Your task to perform on an android device: Go to Google Image 0: 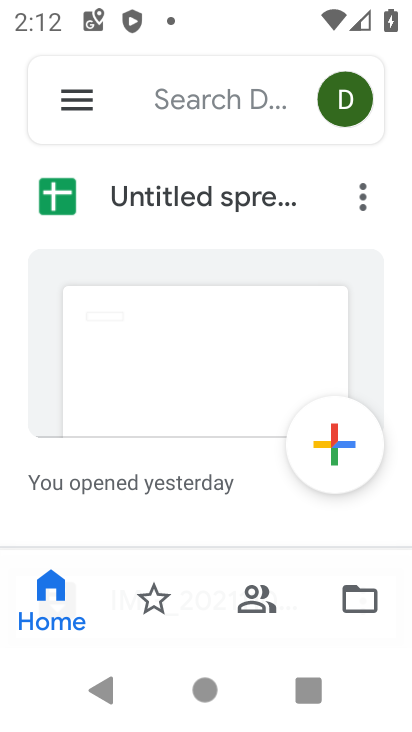
Step 0: press home button
Your task to perform on an android device: Go to Google Image 1: 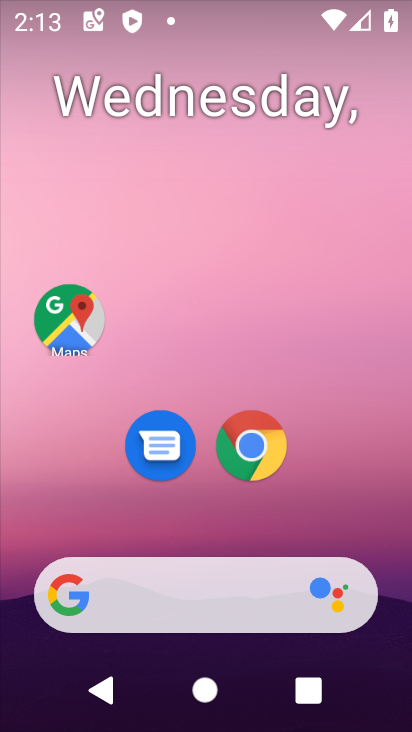
Step 1: drag from (208, 526) to (217, 207)
Your task to perform on an android device: Go to Google Image 2: 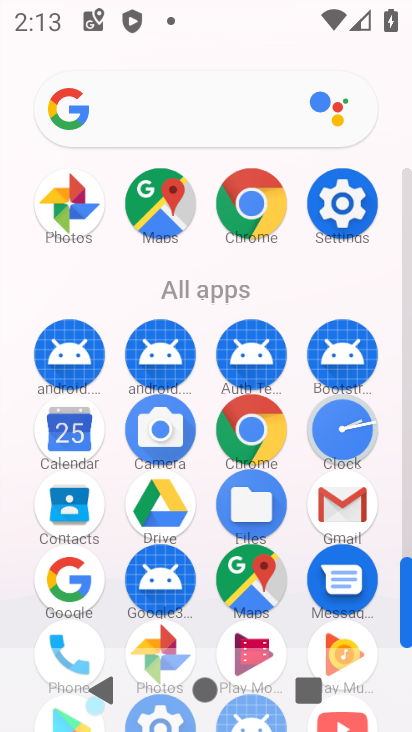
Step 2: click (55, 584)
Your task to perform on an android device: Go to Google Image 3: 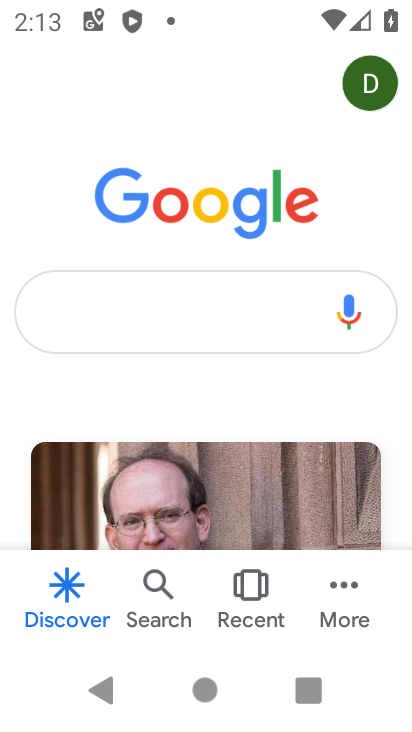
Step 3: task complete